Your task to perform on an android device: toggle show notifications on the lock screen Image 0: 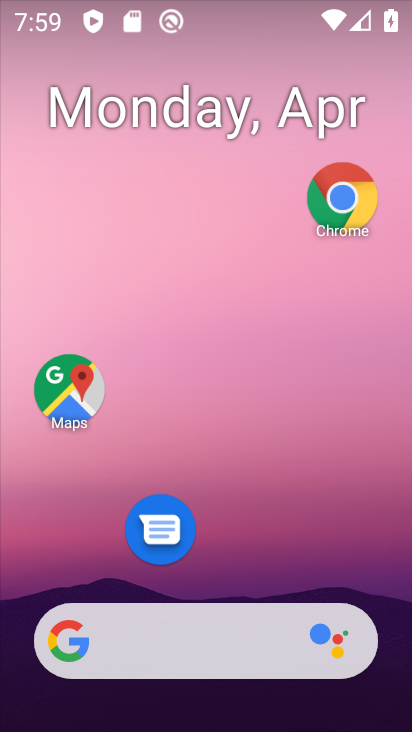
Step 0: drag from (203, 457) to (266, 4)
Your task to perform on an android device: toggle show notifications on the lock screen Image 1: 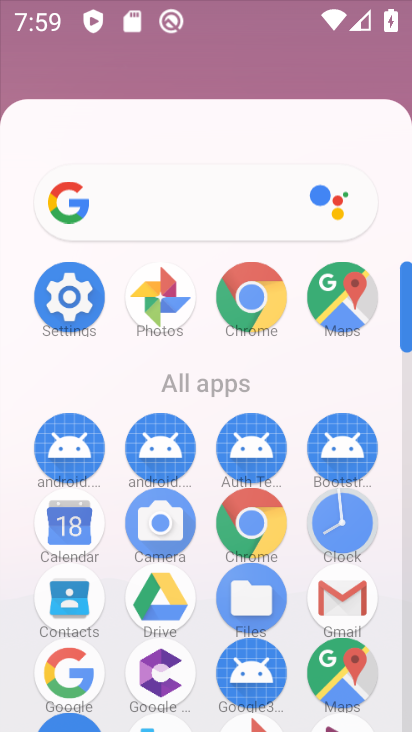
Step 1: click (64, 307)
Your task to perform on an android device: toggle show notifications on the lock screen Image 2: 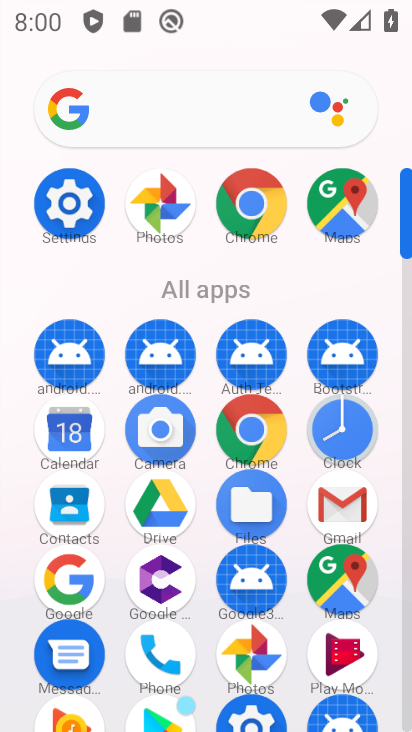
Step 2: click (80, 212)
Your task to perform on an android device: toggle show notifications on the lock screen Image 3: 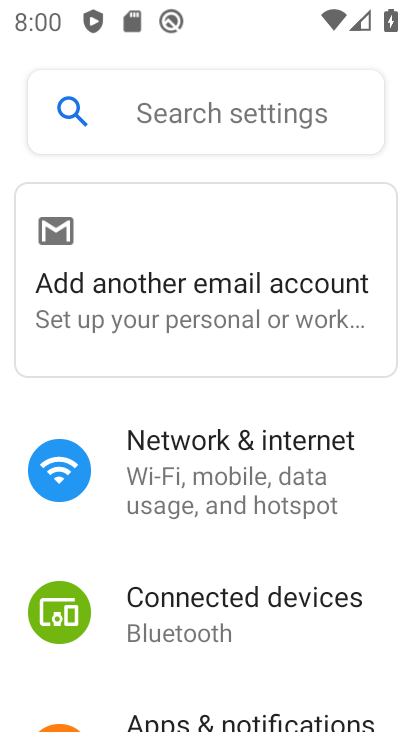
Step 3: click (248, 721)
Your task to perform on an android device: toggle show notifications on the lock screen Image 4: 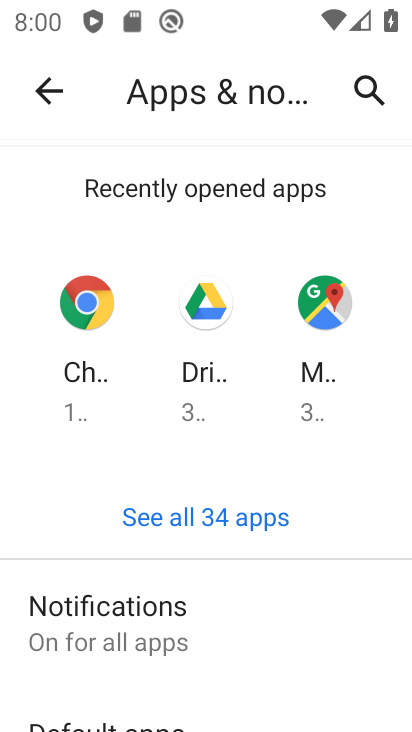
Step 4: drag from (160, 548) to (238, 146)
Your task to perform on an android device: toggle show notifications on the lock screen Image 5: 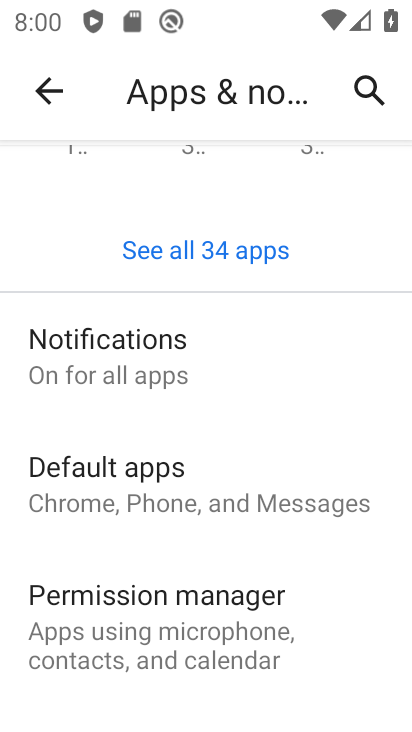
Step 5: click (181, 359)
Your task to perform on an android device: toggle show notifications on the lock screen Image 6: 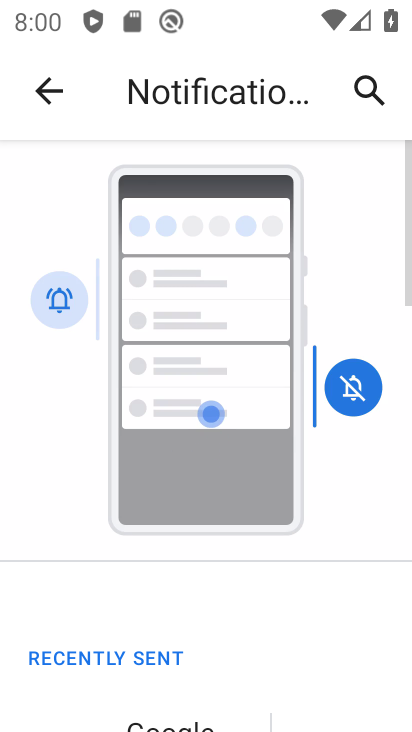
Step 6: drag from (179, 593) to (280, 94)
Your task to perform on an android device: toggle show notifications on the lock screen Image 7: 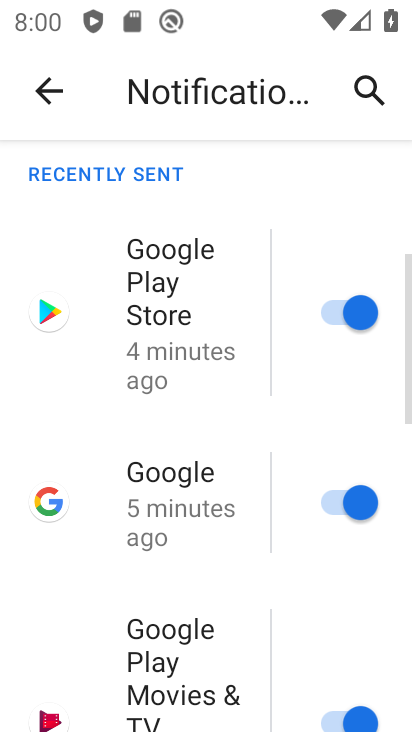
Step 7: drag from (195, 638) to (311, 84)
Your task to perform on an android device: toggle show notifications on the lock screen Image 8: 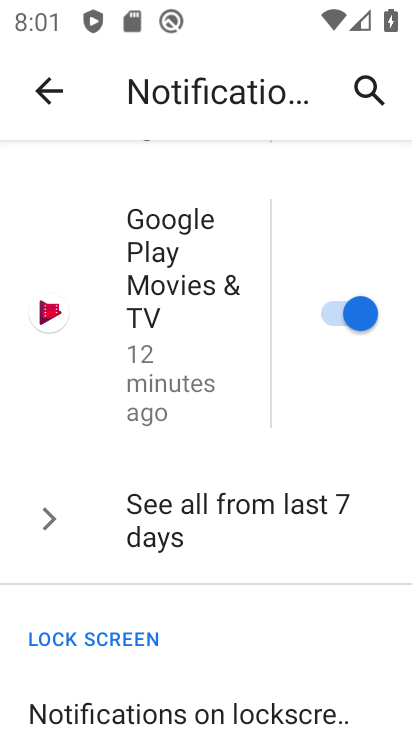
Step 8: drag from (205, 628) to (256, 206)
Your task to perform on an android device: toggle show notifications on the lock screen Image 9: 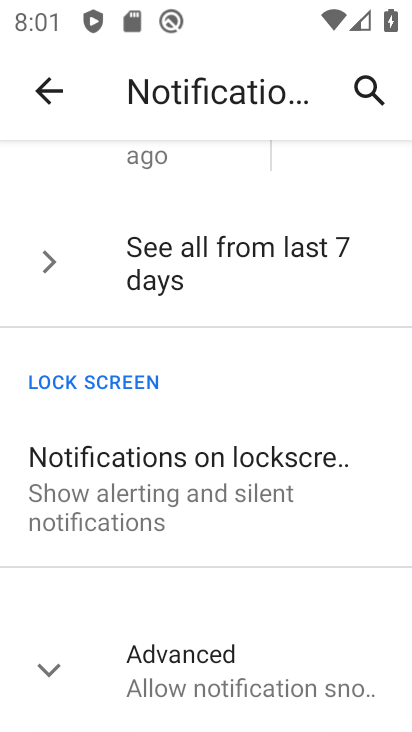
Step 9: click (222, 467)
Your task to perform on an android device: toggle show notifications on the lock screen Image 10: 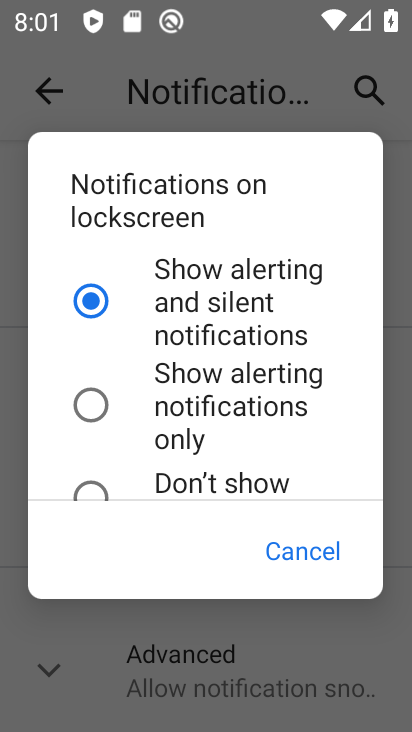
Step 10: click (94, 302)
Your task to perform on an android device: toggle show notifications on the lock screen Image 11: 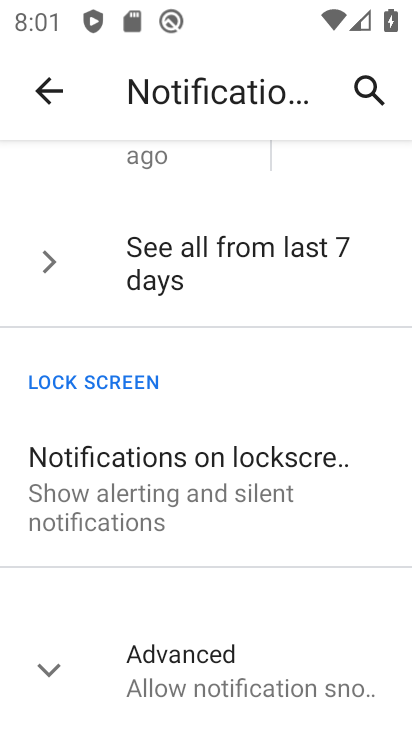
Step 11: task complete